Your task to perform on an android device: Go to Google Image 0: 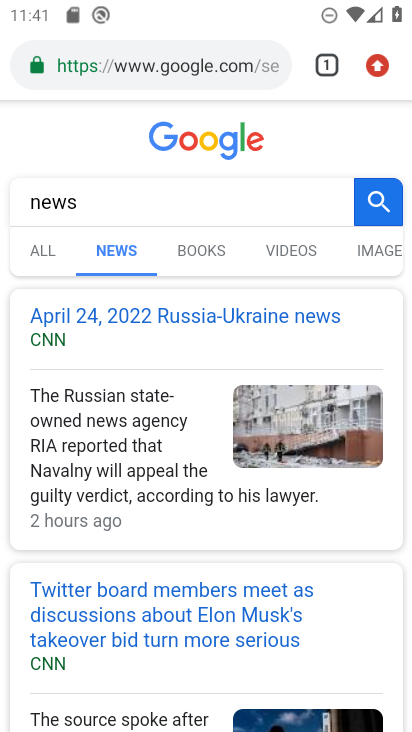
Step 0: press home button
Your task to perform on an android device: Go to Google Image 1: 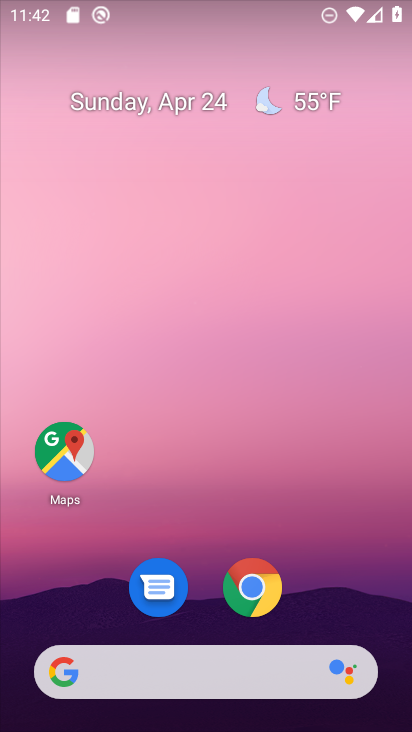
Step 1: drag from (336, 588) to (289, 197)
Your task to perform on an android device: Go to Google Image 2: 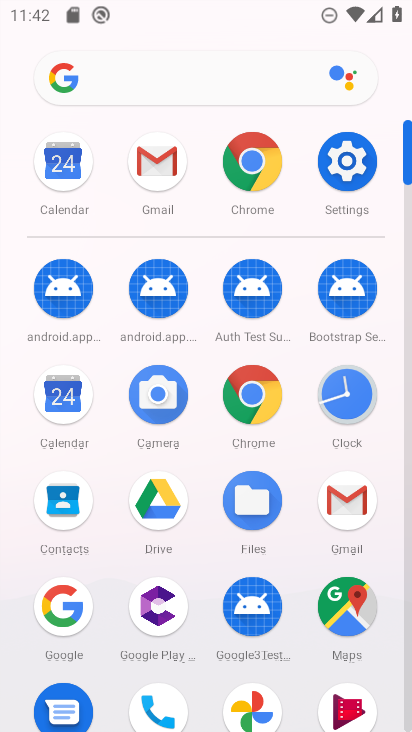
Step 2: click (61, 597)
Your task to perform on an android device: Go to Google Image 3: 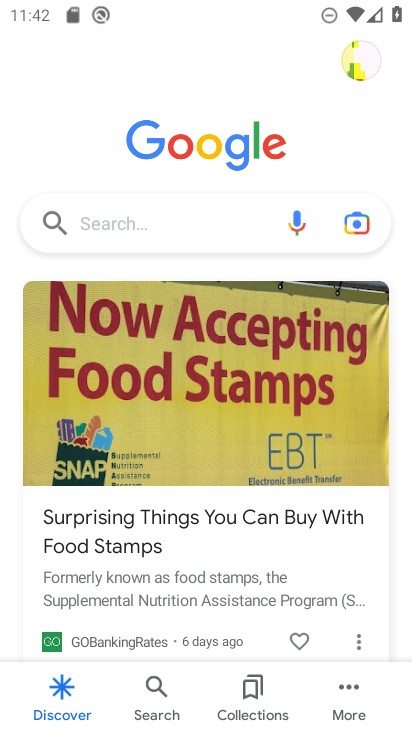
Step 3: task complete